Your task to perform on an android device: See recent photos Image 0: 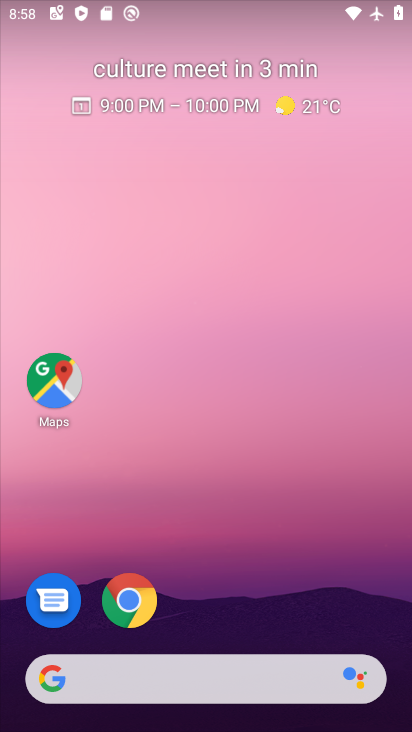
Step 0: drag from (365, 613) to (358, 78)
Your task to perform on an android device: See recent photos Image 1: 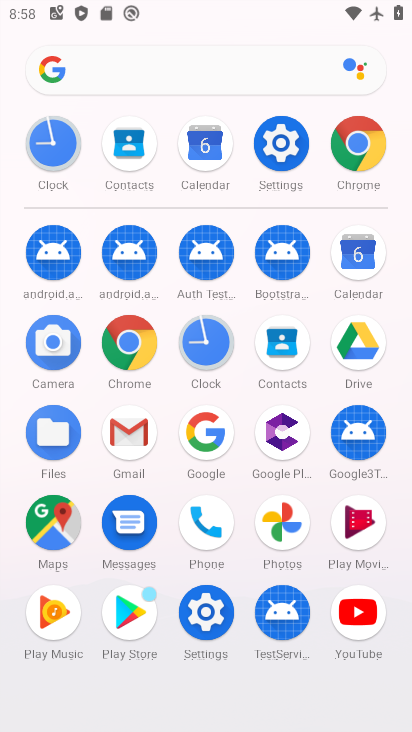
Step 1: click (282, 520)
Your task to perform on an android device: See recent photos Image 2: 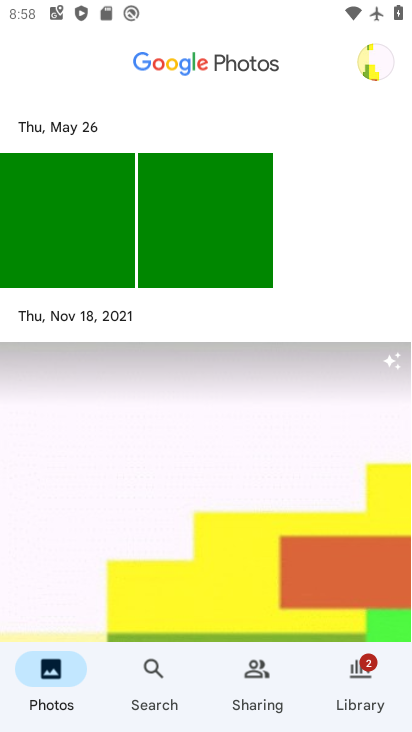
Step 2: task complete